Your task to perform on an android device: Search for hotels in Las Vegas Image 0: 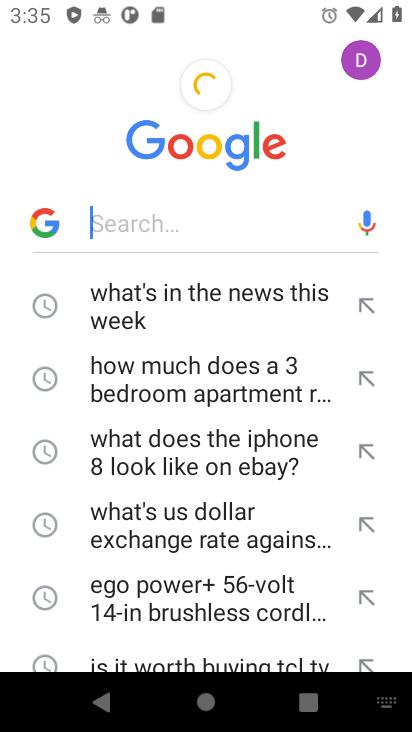
Step 0: press home button
Your task to perform on an android device: Search for hotels in Las Vegas Image 1: 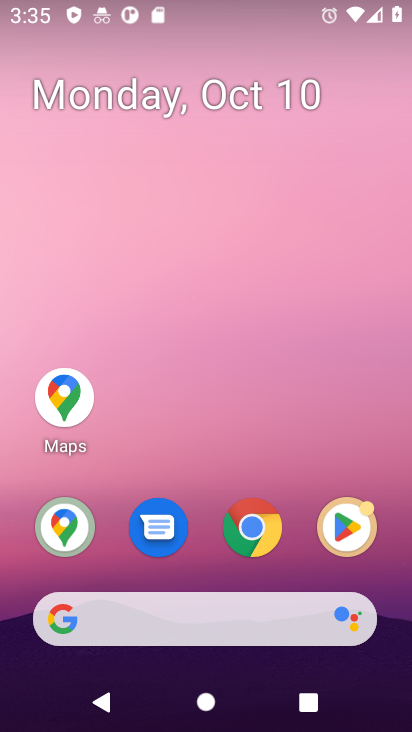
Step 1: click (64, 389)
Your task to perform on an android device: Search for hotels in Las Vegas Image 2: 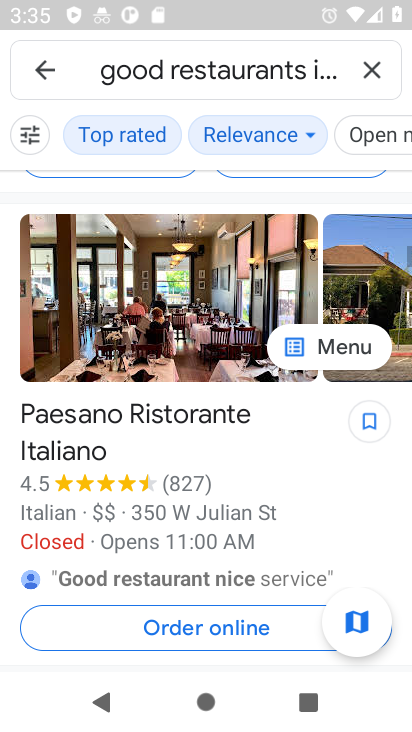
Step 2: click (368, 65)
Your task to perform on an android device: Search for hotels in Las Vegas Image 3: 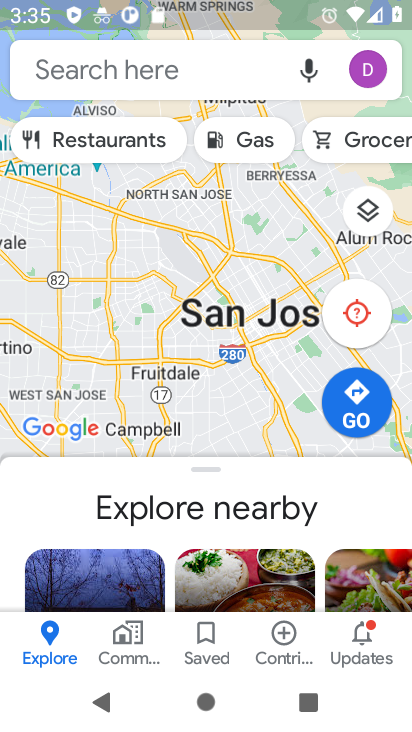
Step 3: type "hotel in Las Vegas"
Your task to perform on an android device: Search for hotels in Las Vegas Image 4: 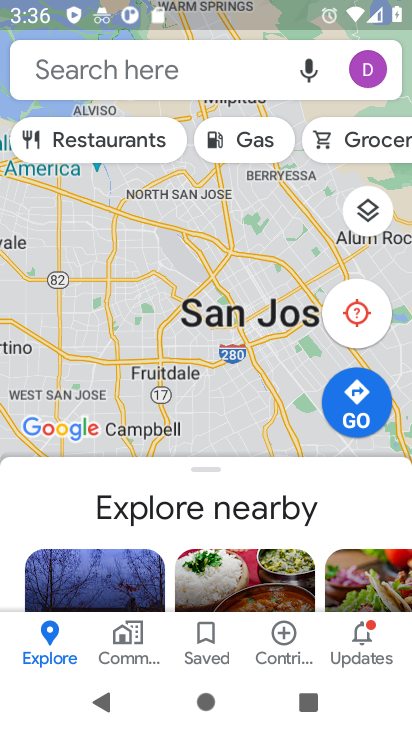
Step 4: click (134, 84)
Your task to perform on an android device: Search for hotels in Las Vegas Image 5: 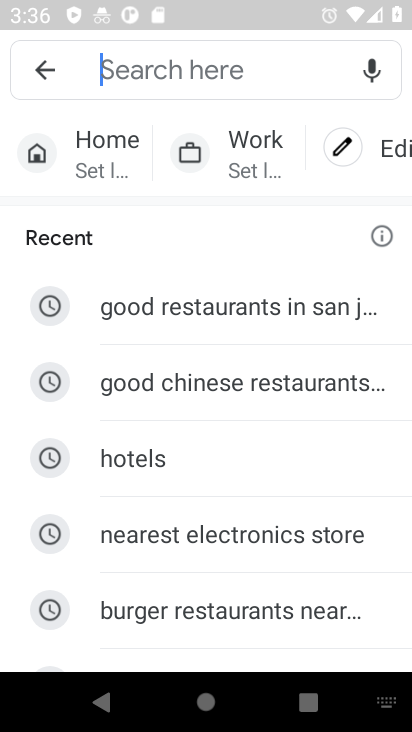
Step 5: type "hotels in Las Vegas"
Your task to perform on an android device: Search for hotels in Las Vegas Image 6: 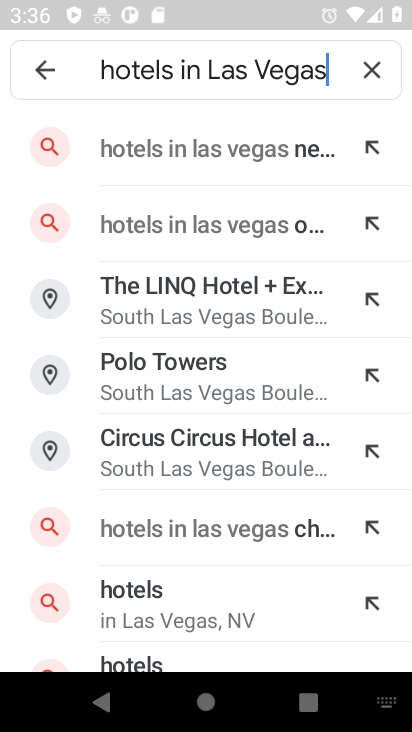
Step 6: click (275, 153)
Your task to perform on an android device: Search for hotels in Las Vegas Image 7: 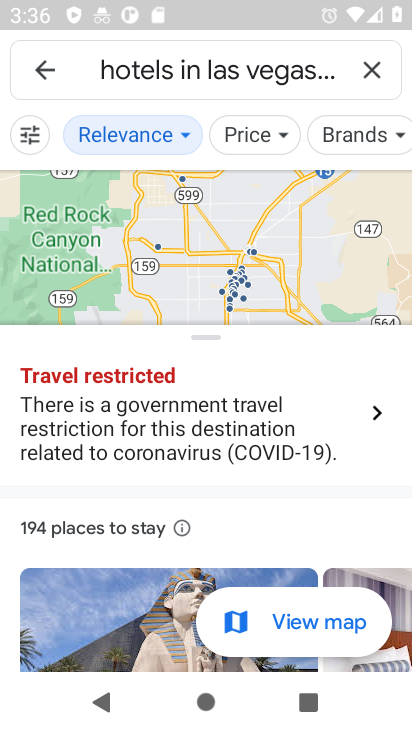
Step 7: task complete